Your task to perform on an android device: Toggle the flashlight Image 0: 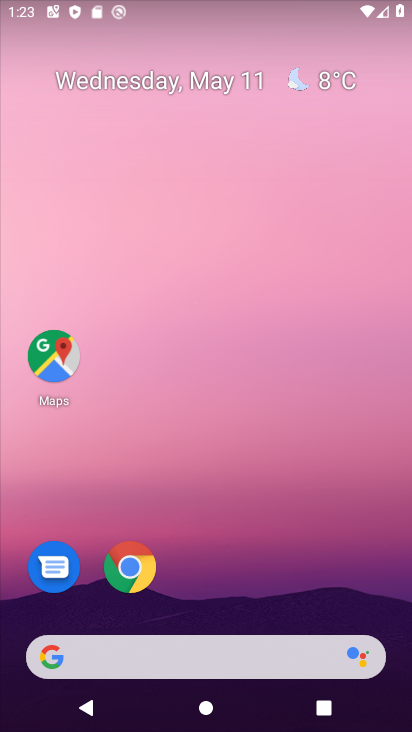
Step 0: drag from (370, 10) to (315, 445)
Your task to perform on an android device: Toggle the flashlight Image 1: 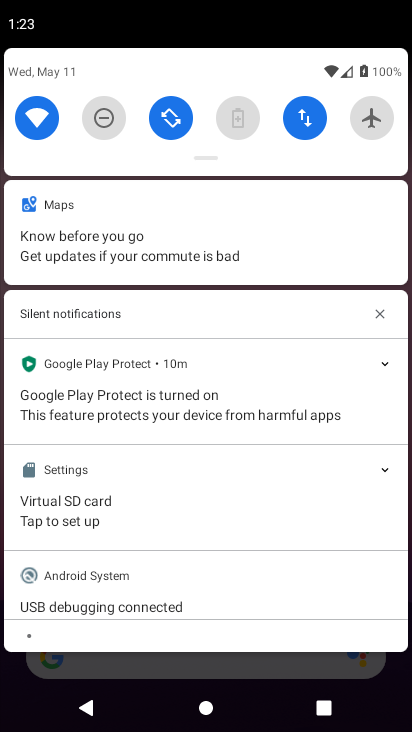
Step 1: drag from (230, 148) to (214, 658)
Your task to perform on an android device: Toggle the flashlight Image 2: 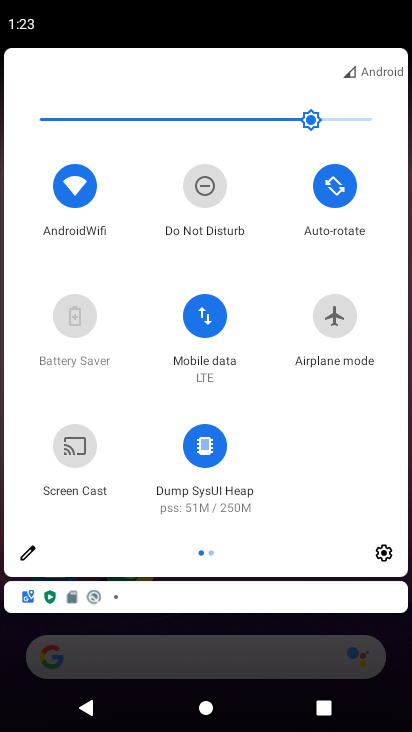
Step 2: click (26, 549)
Your task to perform on an android device: Toggle the flashlight Image 3: 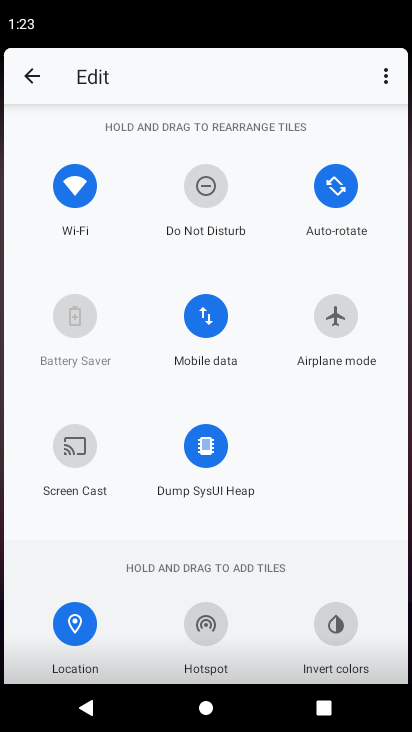
Step 3: task complete